Your task to perform on an android device: delete browsing data in the chrome app Image 0: 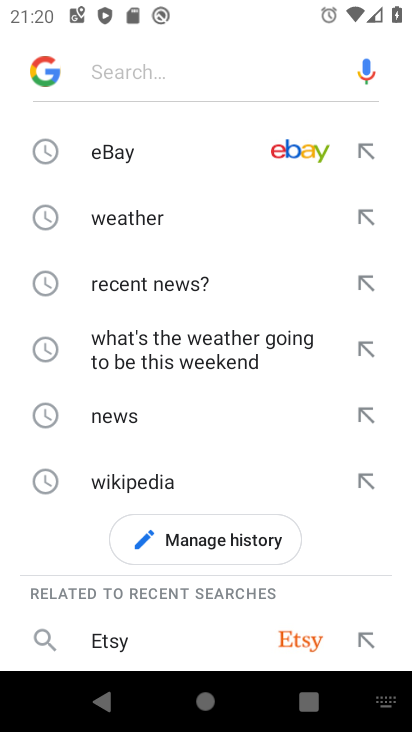
Step 0: press home button
Your task to perform on an android device: delete browsing data in the chrome app Image 1: 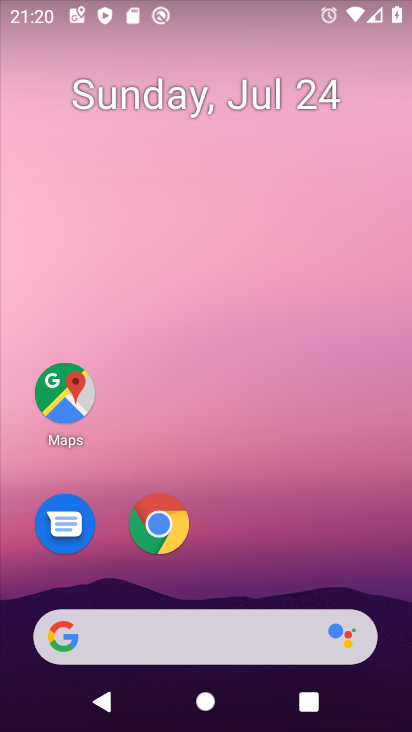
Step 1: drag from (269, 555) to (296, 333)
Your task to perform on an android device: delete browsing data in the chrome app Image 2: 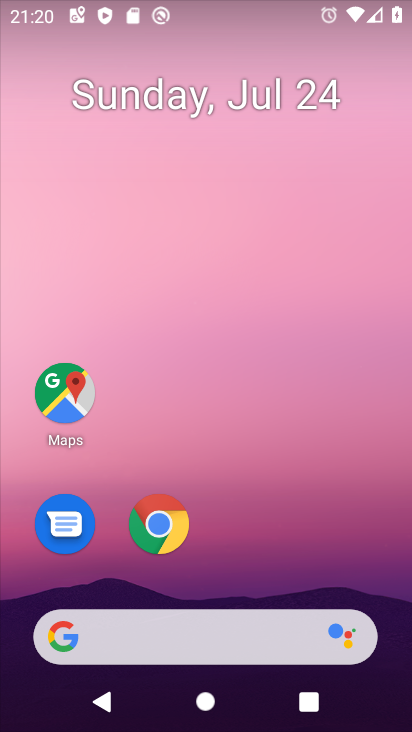
Step 2: click (173, 530)
Your task to perform on an android device: delete browsing data in the chrome app Image 3: 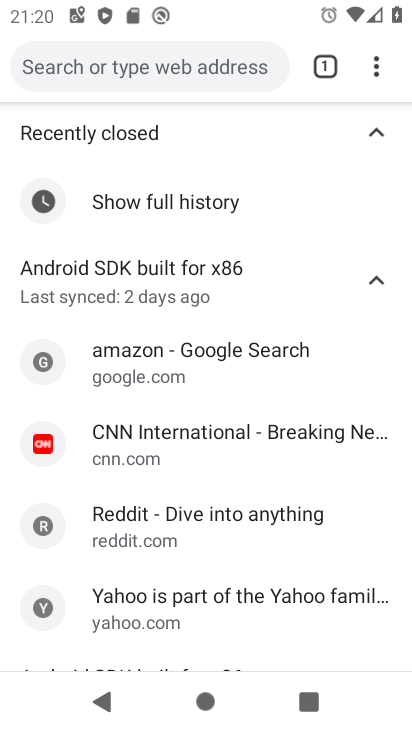
Step 3: click (374, 69)
Your task to perform on an android device: delete browsing data in the chrome app Image 4: 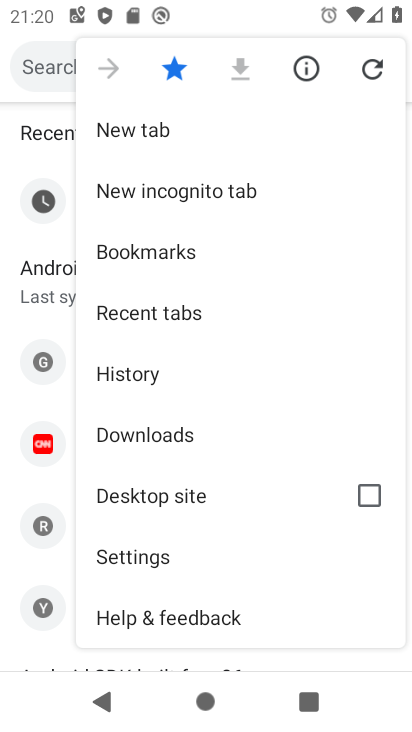
Step 4: click (142, 369)
Your task to perform on an android device: delete browsing data in the chrome app Image 5: 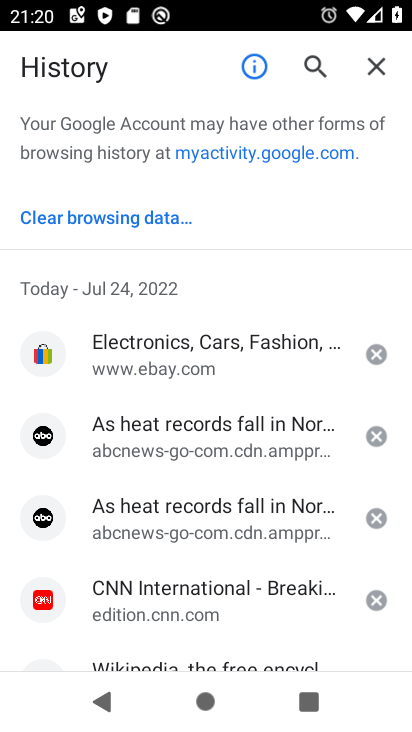
Step 5: click (124, 213)
Your task to perform on an android device: delete browsing data in the chrome app Image 6: 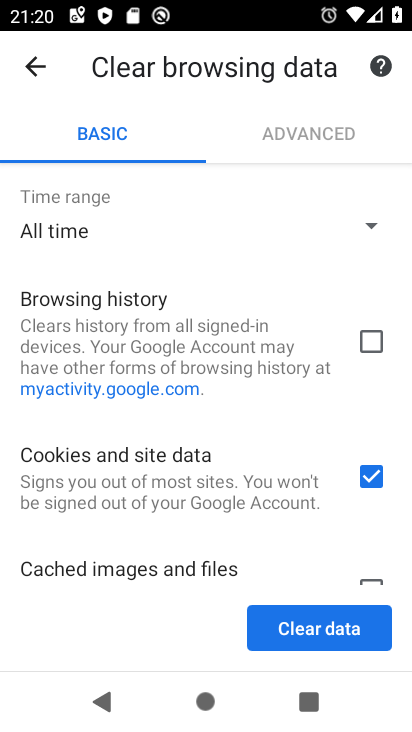
Step 6: click (372, 339)
Your task to perform on an android device: delete browsing data in the chrome app Image 7: 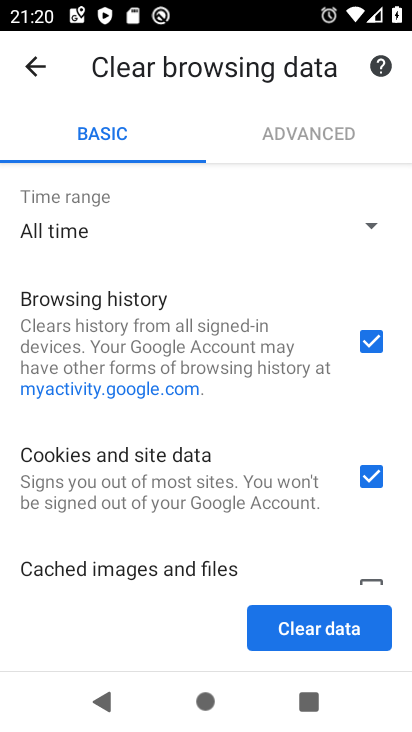
Step 7: drag from (327, 497) to (333, 309)
Your task to perform on an android device: delete browsing data in the chrome app Image 8: 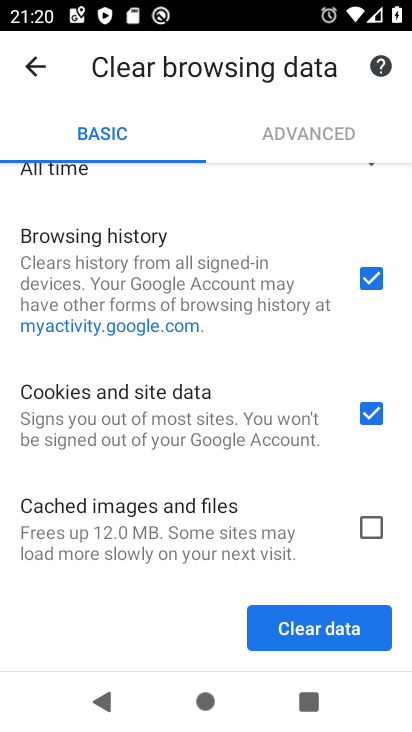
Step 8: click (363, 523)
Your task to perform on an android device: delete browsing data in the chrome app Image 9: 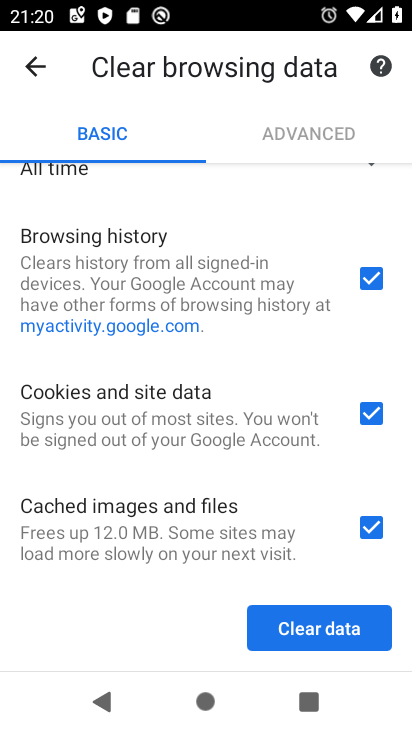
Step 9: click (354, 634)
Your task to perform on an android device: delete browsing data in the chrome app Image 10: 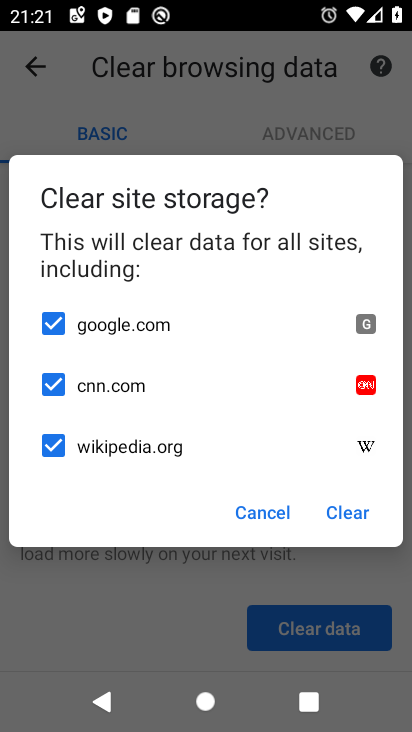
Step 10: click (358, 498)
Your task to perform on an android device: delete browsing data in the chrome app Image 11: 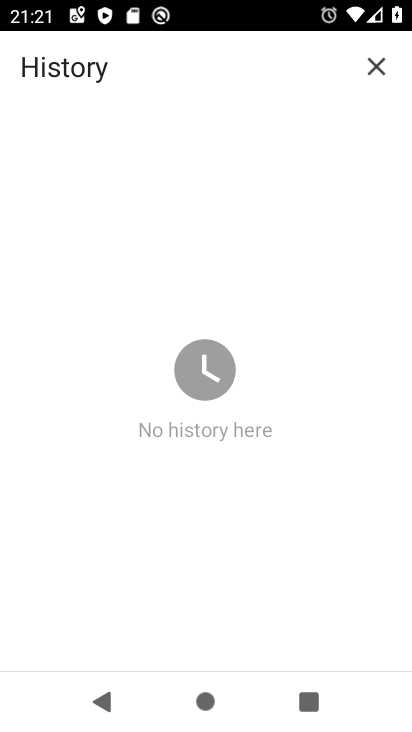
Step 11: task complete